Your task to perform on an android device: Open network settings Image 0: 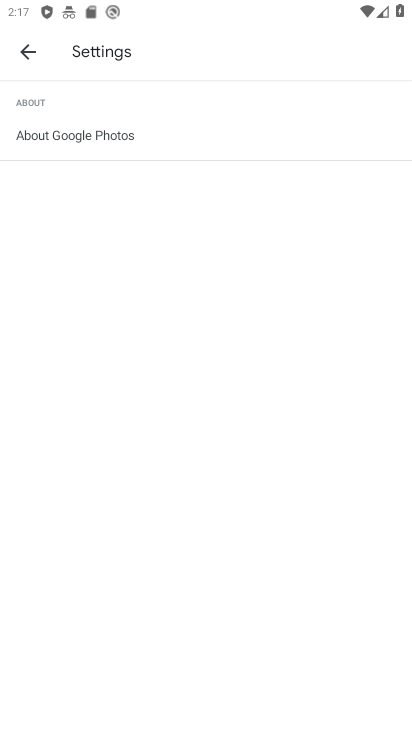
Step 0: press home button
Your task to perform on an android device: Open network settings Image 1: 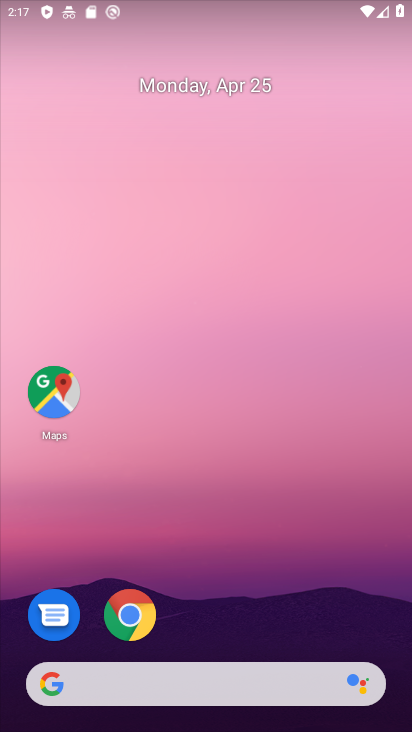
Step 1: drag from (228, 715) to (210, 198)
Your task to perform on an android device: Open network settings Image 2: 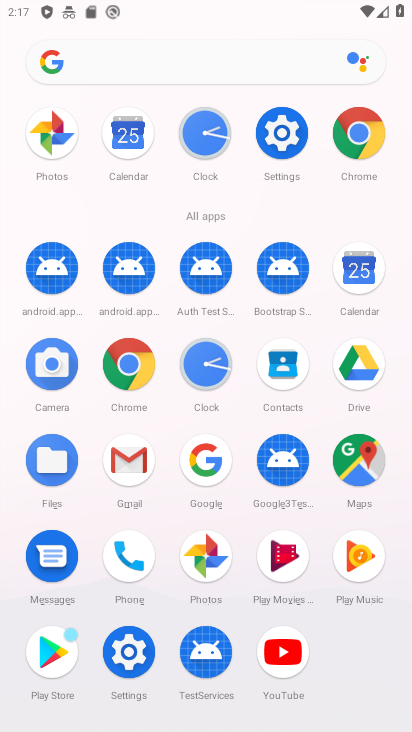
Step 2: click (287, 127)
Your task to perform on an android device: Open network settings Image 3: 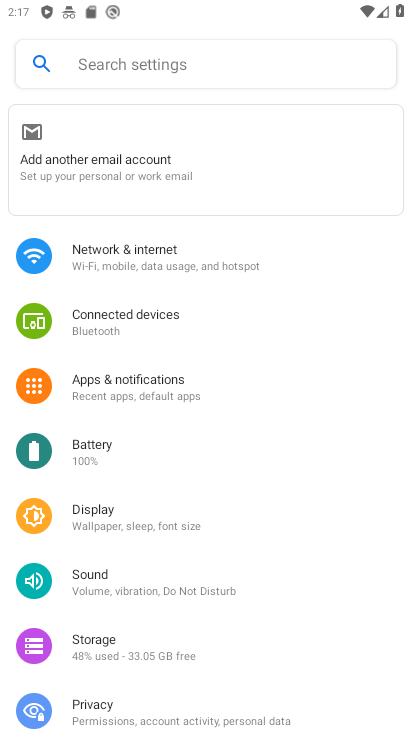
Step 3: click (135, 250)
Your task to perform on an android device: Open network settings Image 4: 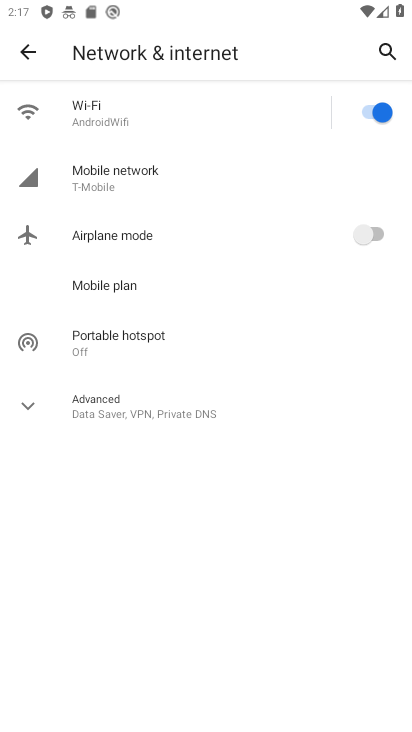
Step 4: task complete